Your task to perform on an android device: Open ESPN.com Image 0: 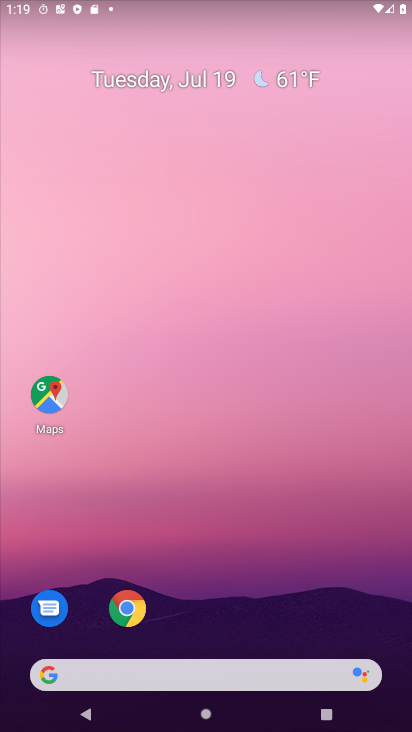
Step 0: drag from (122, 538) to (148, 18)
Your task to perform on an android device: Open ESPN.com Image 1: 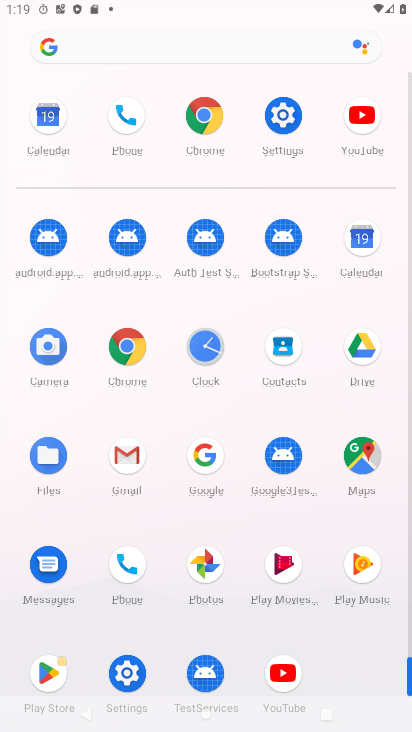
Step 1: click (210, 124)
Your task to perform on an android device: Open ESPN.com Image 2: 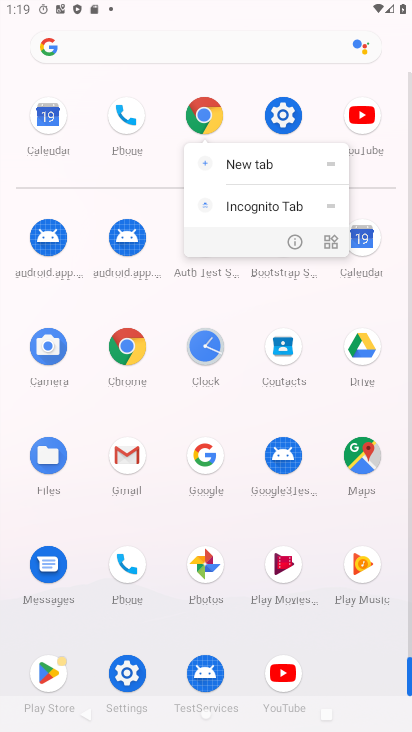
Step 2: click (124, 347)
Your task to perform on an android device: Open ESPN.com Image 3: 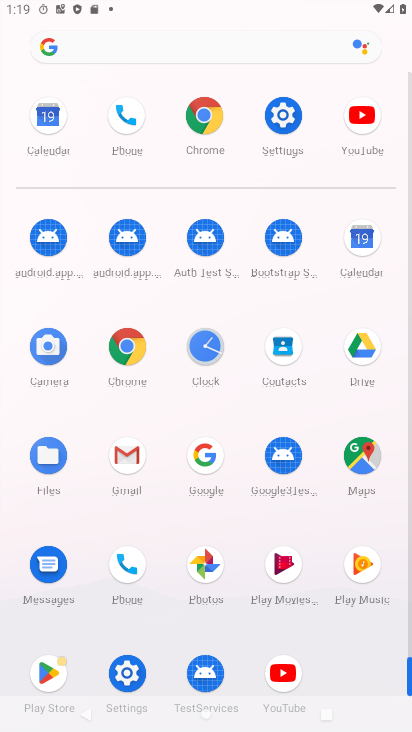
Step 3: click (128, 352)
Your task to perform on an android device: Open ESPN.com Image 4: 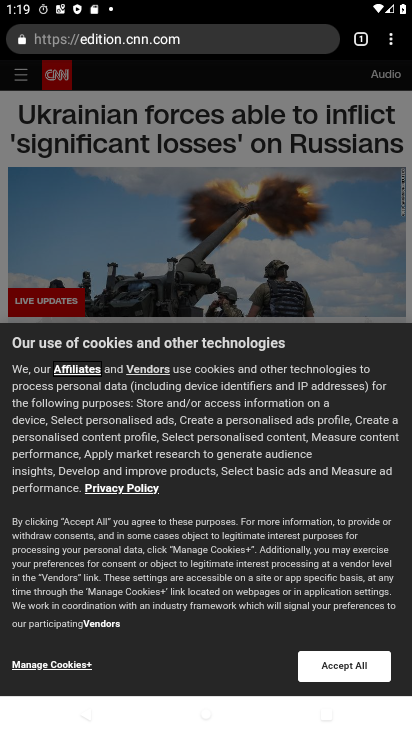
Step 4: press back button
Your task to perform on an android device: Open ESPN.com Image 5: 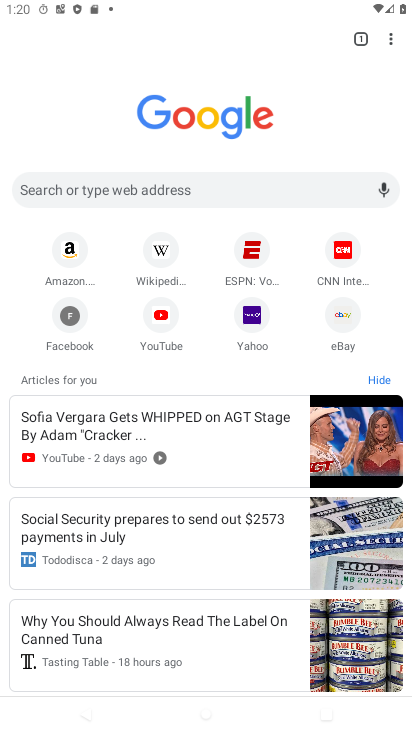
Step 5: click (246, 257)
Your task to perform on an android device: Open ESPN.com Image 6: 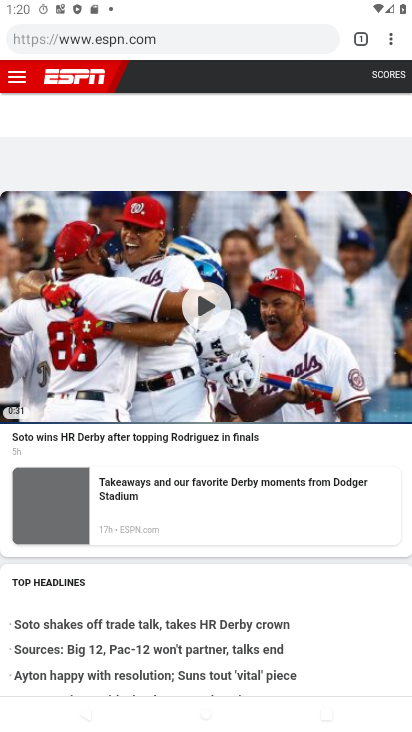
Step 6: task complete